Your task to perform on an android device: Open the calendar app, open the side menu, and click the "Day" option Image 0: 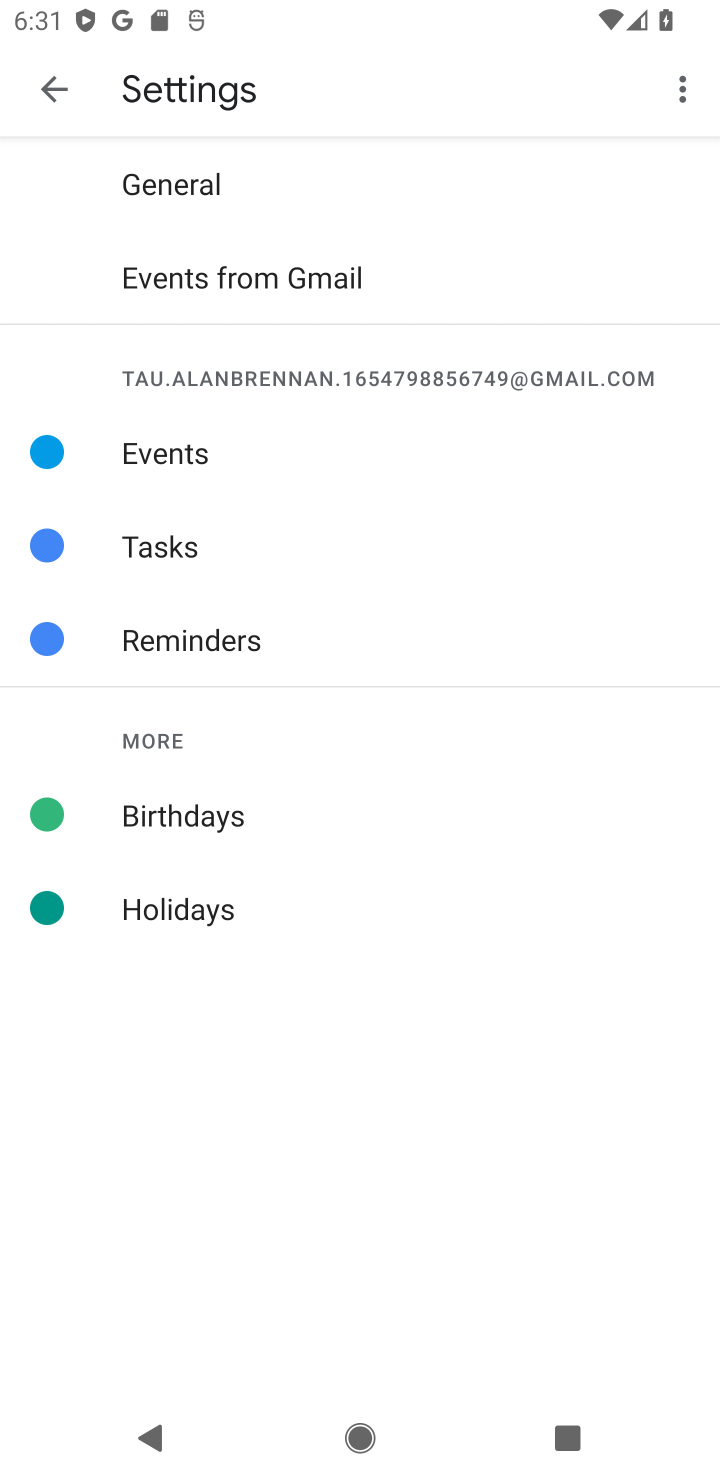
Step 0: press home button
Your task to perform on an android device: Open the calendar app, open the side menu, and click the "Day" option Image 1: 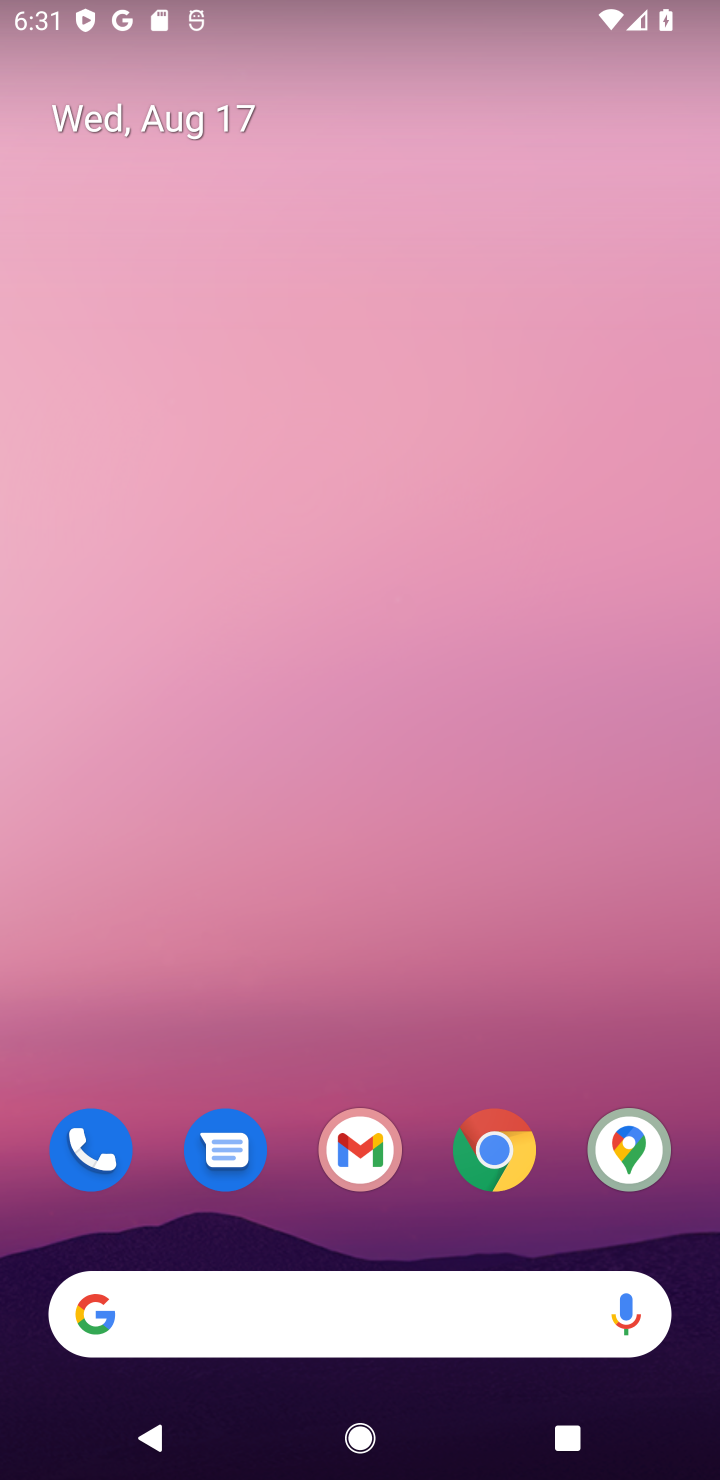
Step 1: drag from (343, 1247) to (387, 417)
Your task to perform on an android device: Open the calendar app, open the side menu, and click the "Day" option Image 2: 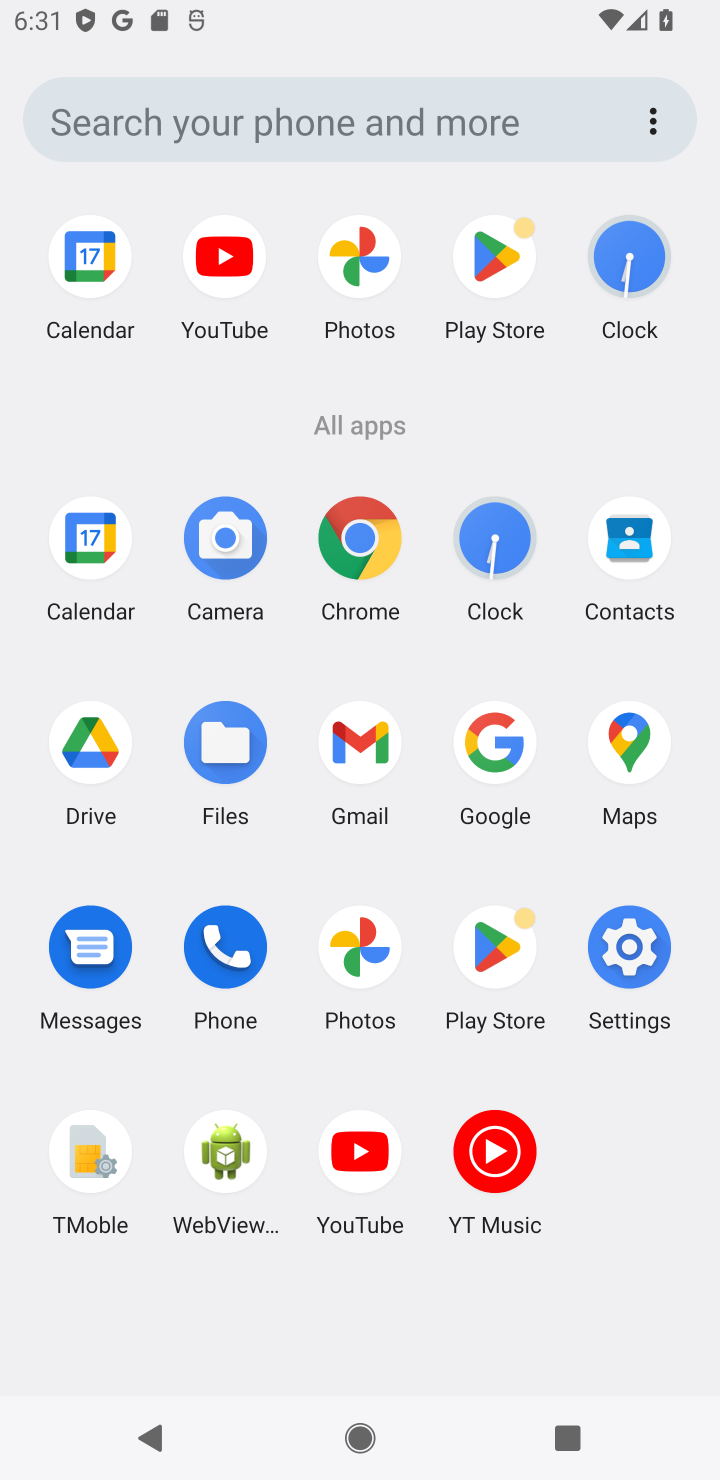
Step 2: click (95, 540)
Your task to perform on an android device: Open the calendar app, open the side menu, and click the "Day" option Image 3: 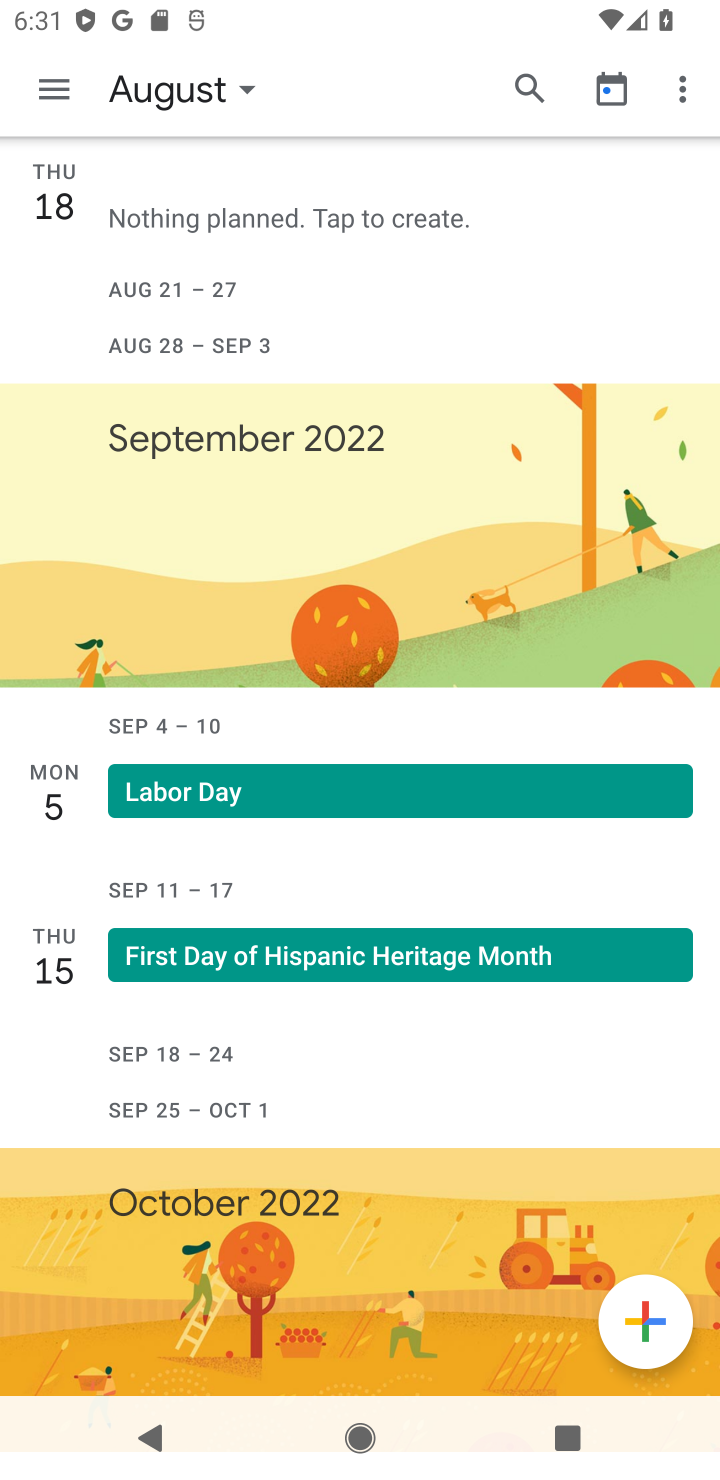
Step 3: click (52, 89)
Your task to perform on an android device: Open the calendar app, open the side menu, and click the "Day" option Image 4: 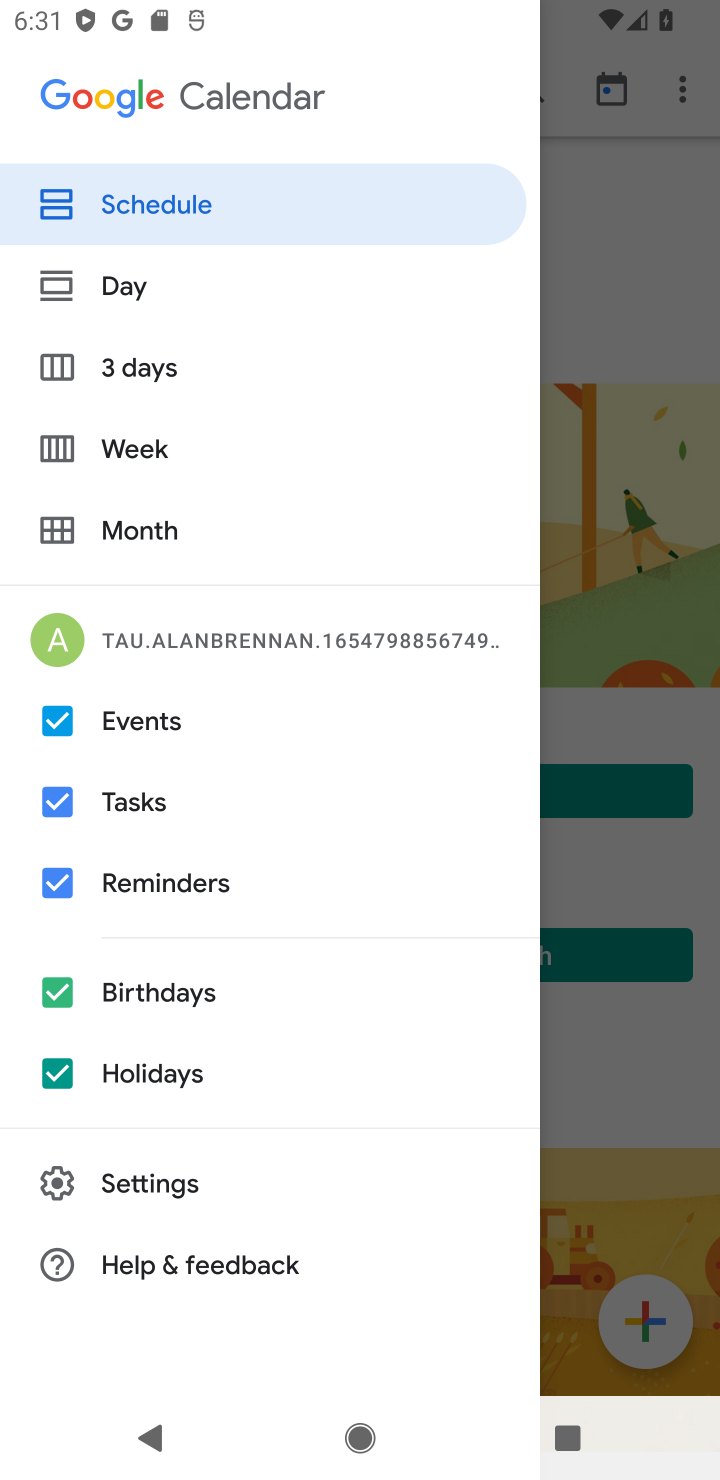
Step 4: click (146, 289)
Your task to perform on an android device: Open the calendar app, open the side menu, and click the "Day" option Image 5: 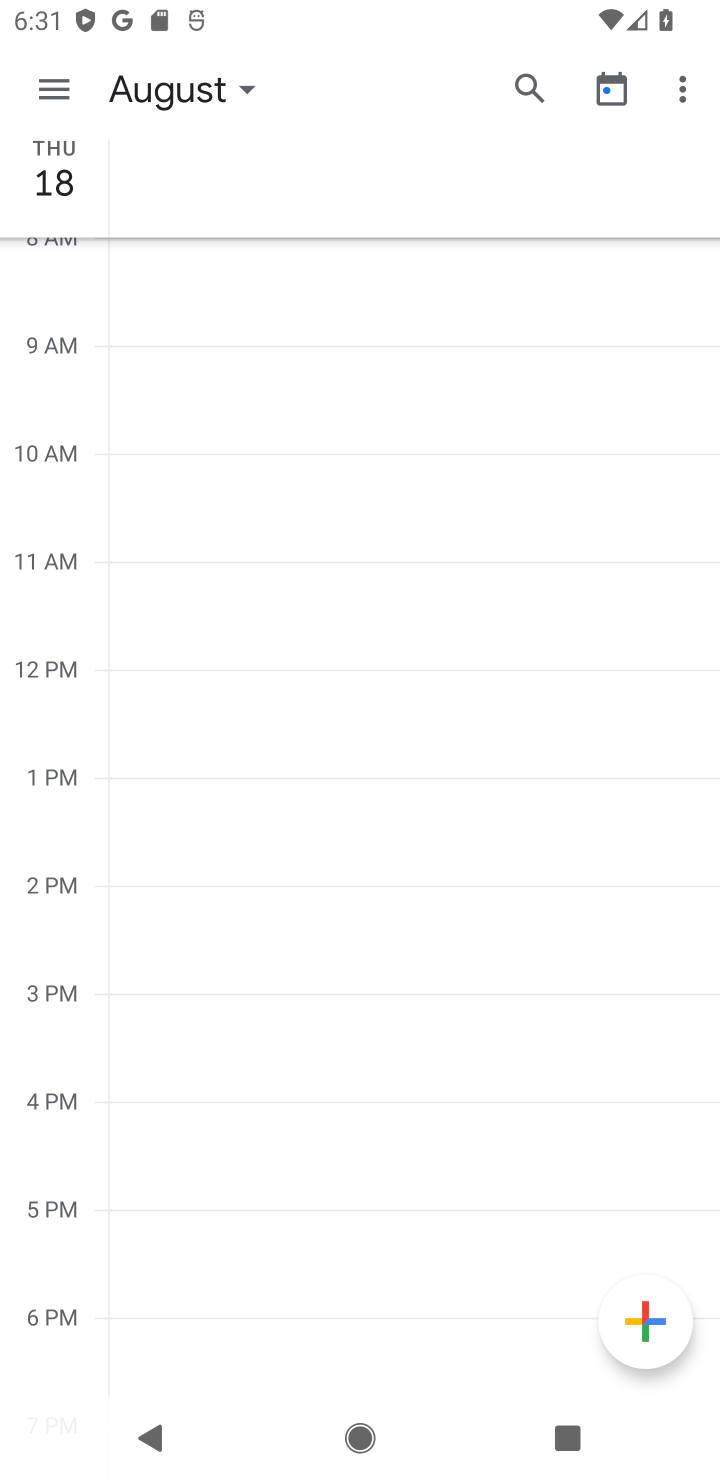
Step 5: task complete